Your task to perform on an android device: turn off wifi Image 0: 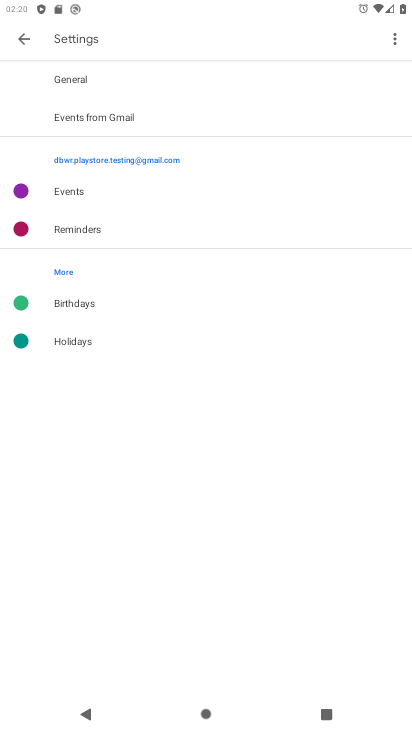
Step 0: press home button
Your task to perform on an android device: turn off wifi Image 1: 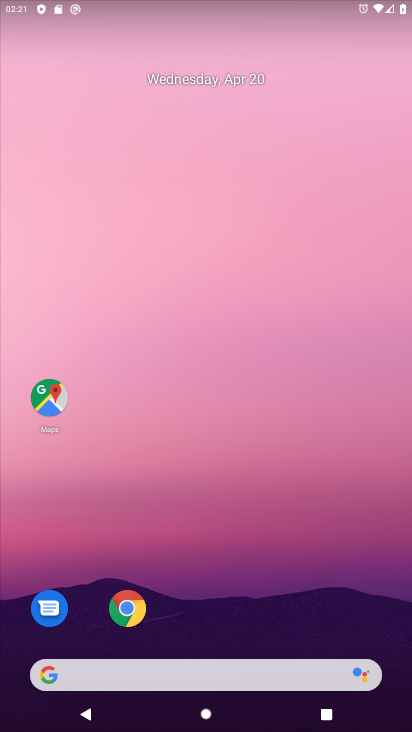
Step 1: drag from (349, 318) to (326, 6)
Your task to perform on an android device: turn off wifi Image 2: 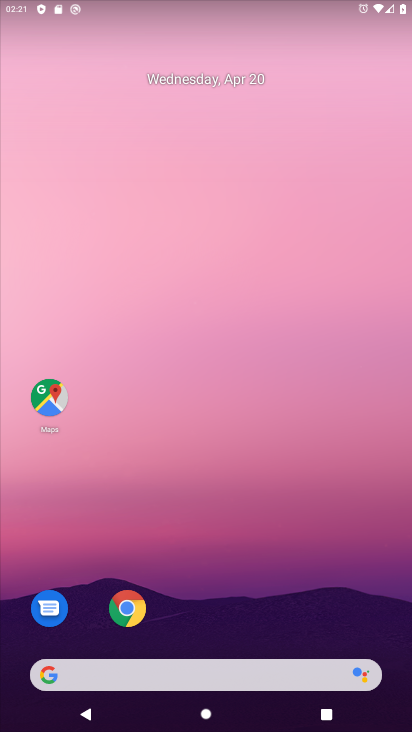
Step 2: drag from (343, 596) to (335, 84)
Your task to perform on an android device: turn off wifi Image 3: 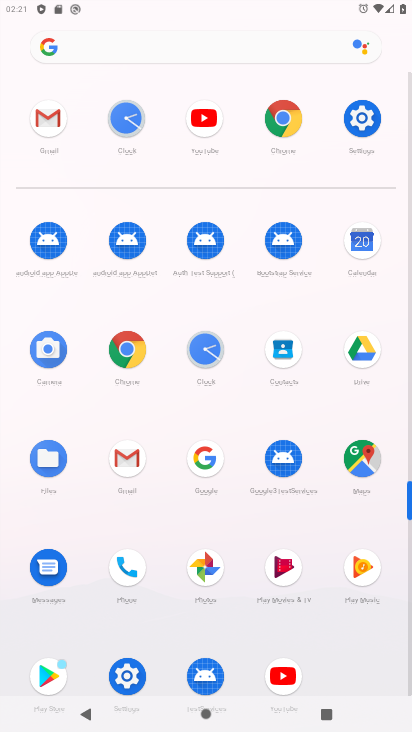
Step 3: click (354, 124)
Your task to perform on an android device: turn off wifi Image 4: 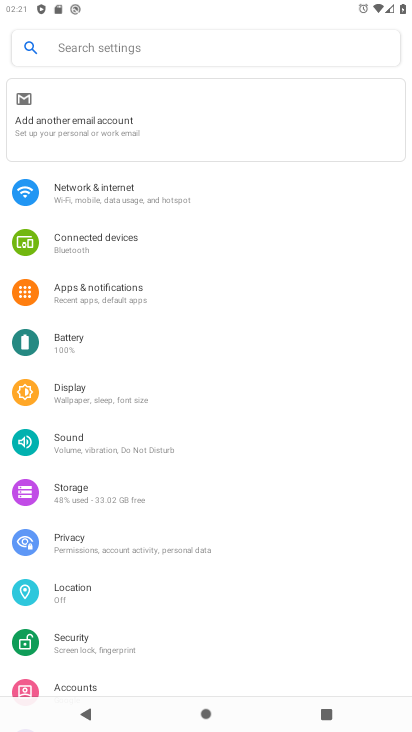
Step 4: drag from (359, 650) to (367, 349)
Your task to perform on an android device: turn off wifi Image 5: 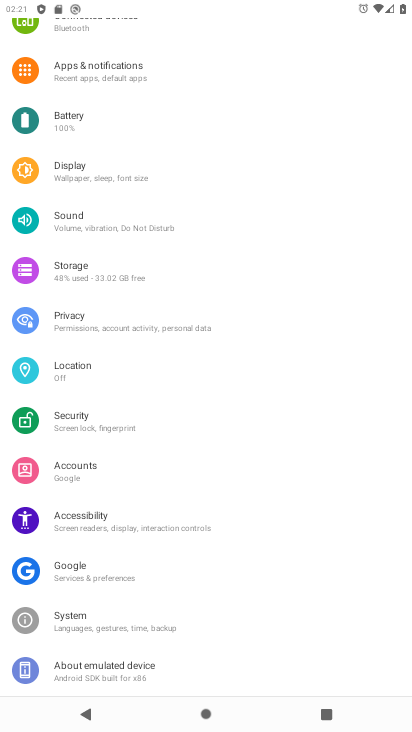
Step 5: drag from (218, 181) to (284, 573)
Your task to perform on an android device: turn off wifi Image 6: 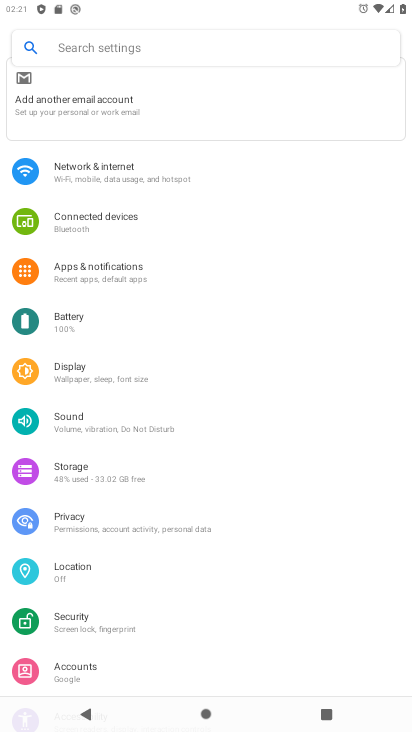
Step 6: click (133, 175)
Your task to perform on an android device: turn off wifi Image 7: 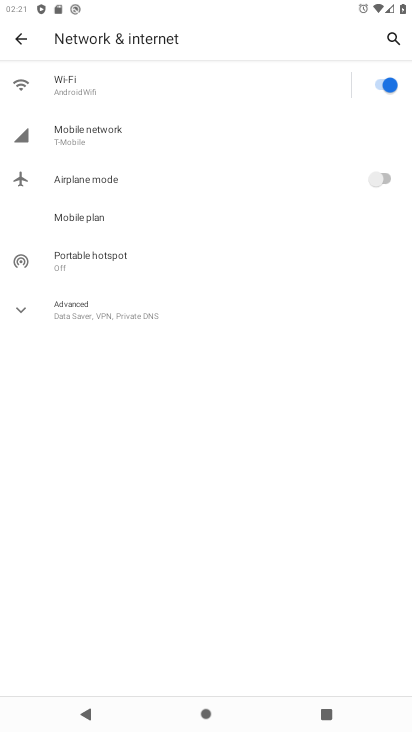
Step 7: click (382, 83)
Your task to perform on an android device: turn off wifi Image 8: 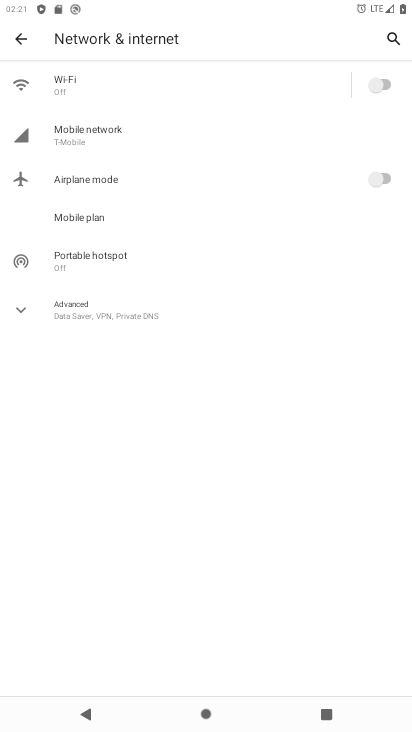
Step 8: task complete